Your task to perform on an android device: What is the news today? Image 0: 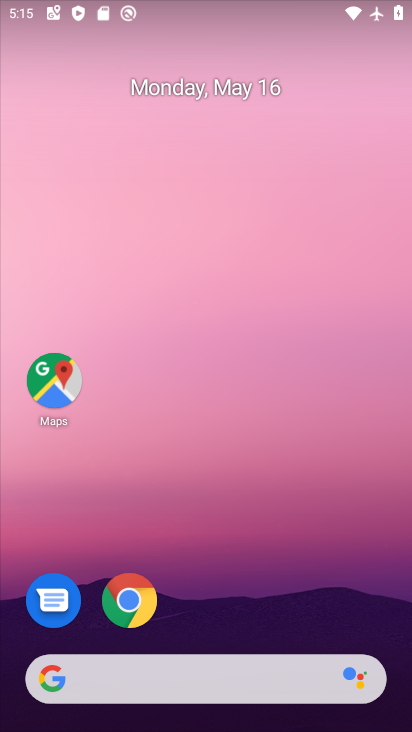
Step 0: drag from (208, 642) to (171, 24)
Your task to perform on an android device: What is the news today? Image 1: 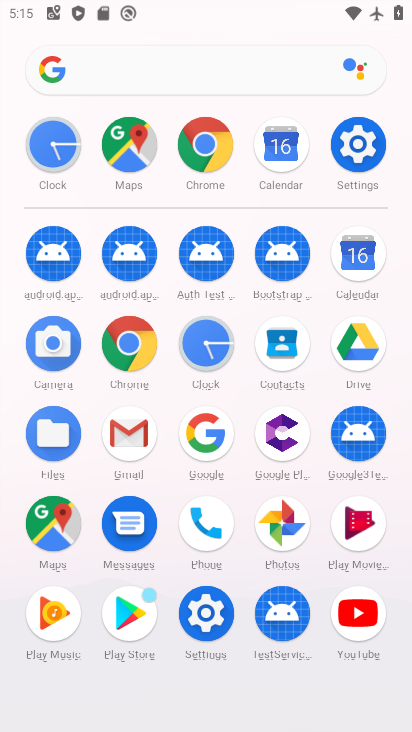
Step 1: click (204, 452)
Your task to perform on an android device: What is the news today? Image 2: 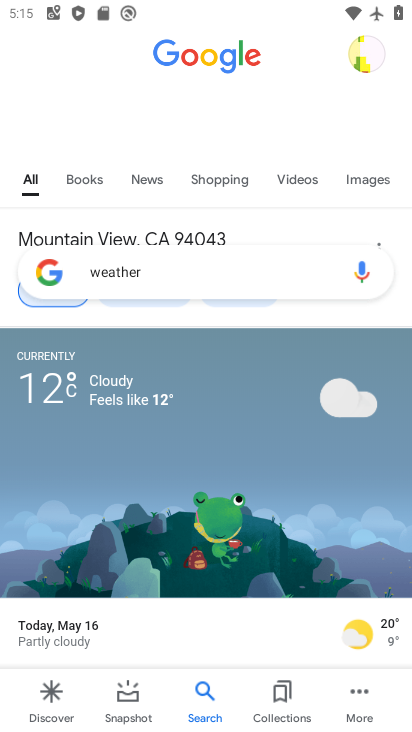
Step 2: drag from (147, 170) to (89, 170)
Your task to perform on an android device: What is the news today? Image 3: 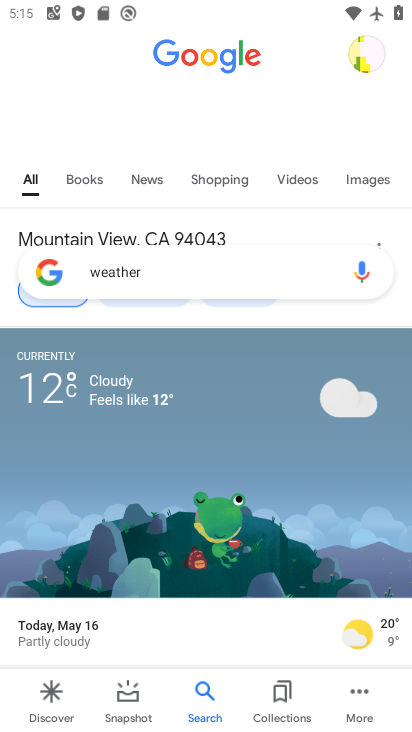
Step 3: click (152, 170)
Your task to perform on an android device: What is the news today? Image 4: 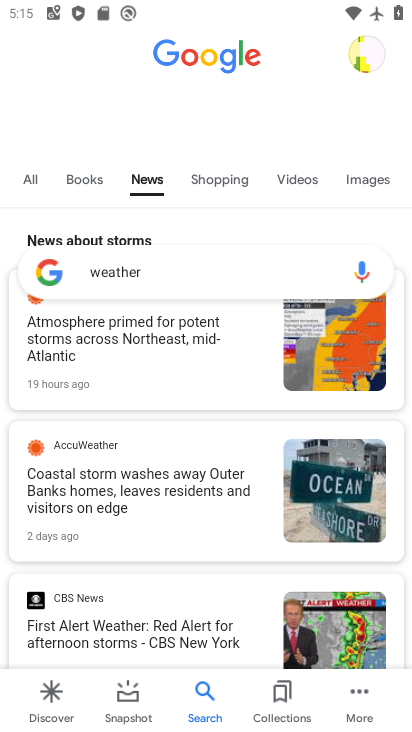
Step 4: task complete